Your task to perform on an android device: Open sound settings Image 0: 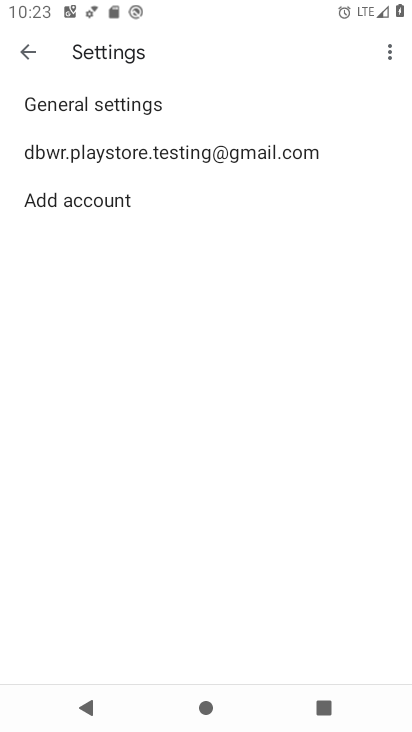
Step 0: press home button
Your task to perform on an android device: Open sound settings Image 1: 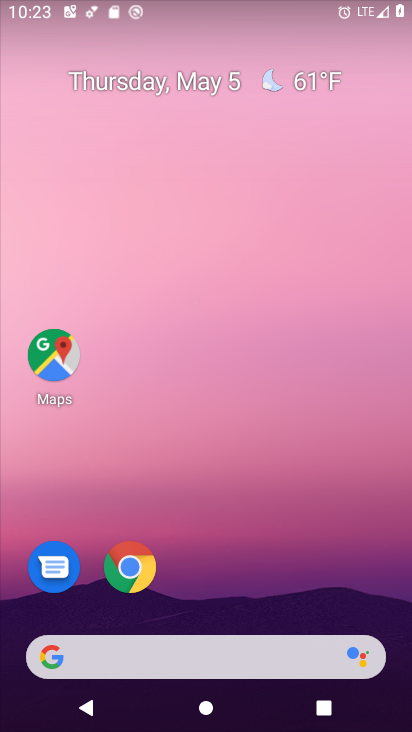
Step 1: drag from (235, 567) to (285, 198)
Your task to perform on an android device: Open sound settings Image 2: 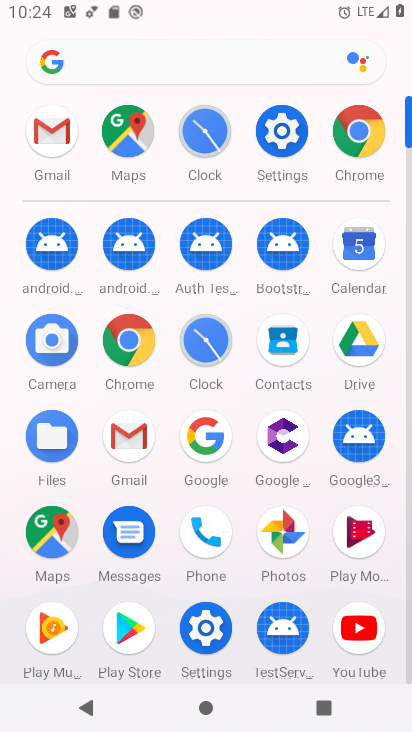
Step 2: click (278, 139)
Your task to perform on an android device: Open sound settings Image 3: 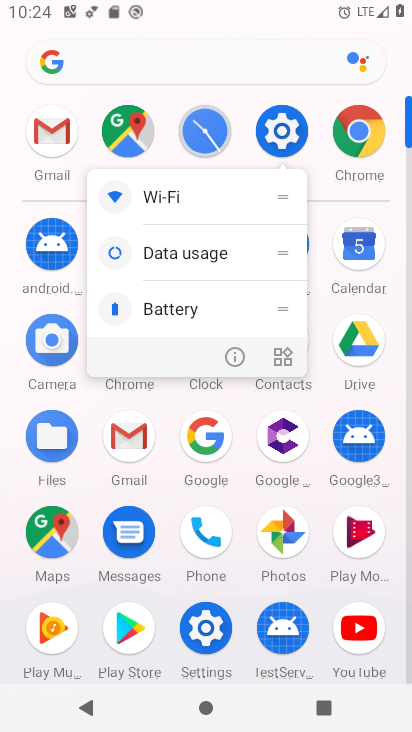
Step 3: click (285, 137)
Your task to perform on an android device: Open sound settings Image 4: 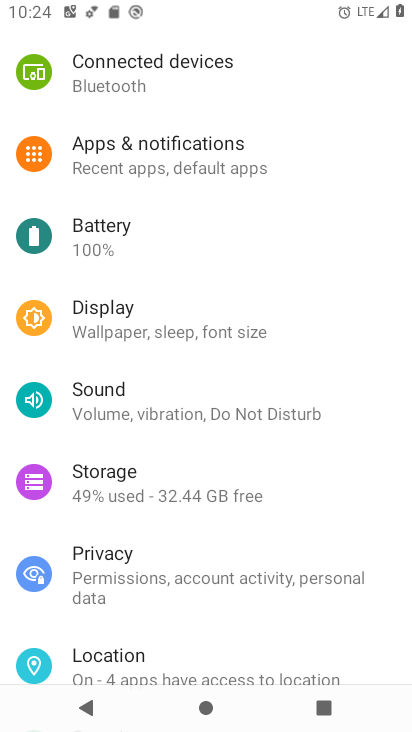
Step 4: drag from (228, 632) to (226, 387)
Your task to perform on an android device: Open sound settings Image 5: 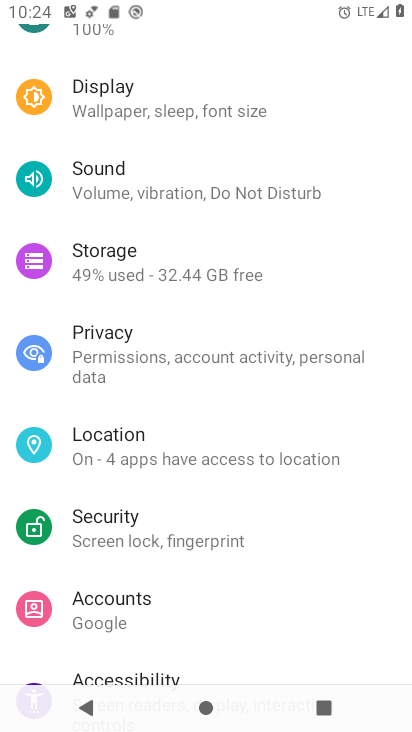
Step 5: click (191, 184)
Your task to perform on an android device: Open sound settings Image 6: 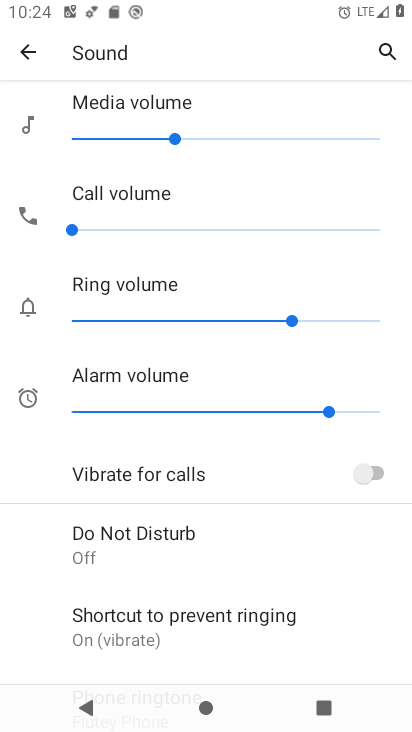
Step 6: task complete